Your task to perform on an android device: Open CNN.com Image 0: 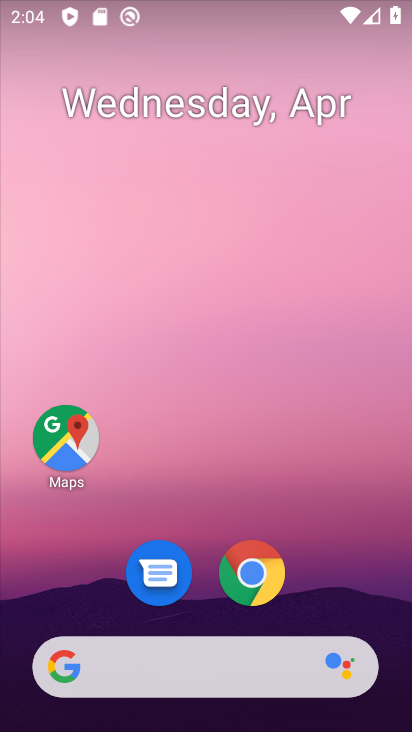
Step 0: drag from (341, 574) to (353, 247)
Your task to perform on an android device: Open CNN.com Image 1: 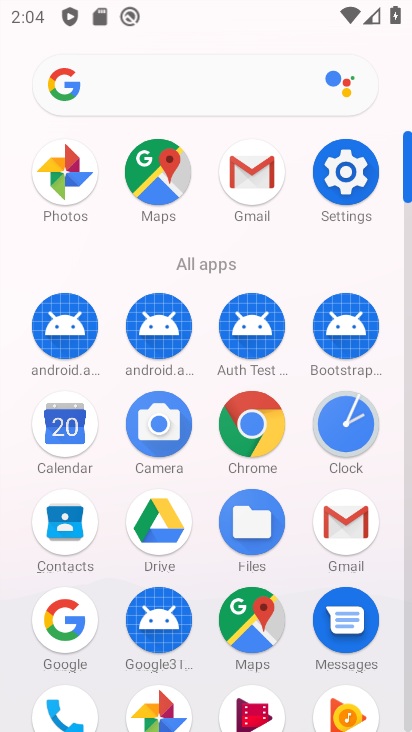
Step 1: click (268, 436)
Your task to perform on an android device: Open CNN.com Image 2: 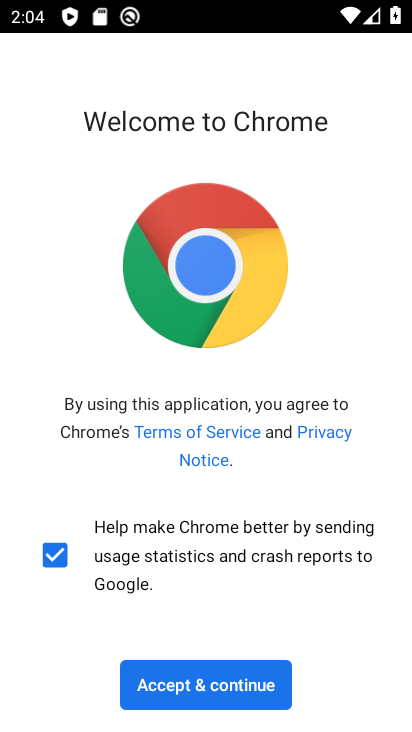
Step 2: click (235, 689)
Your task to perform on an android device: Open CNN.com Image 3: 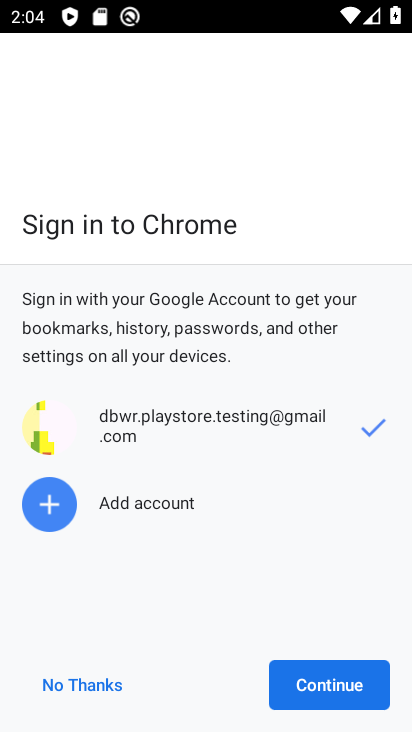
Step 3: click (355, 682)
Your task to perform on an android device: Open CNN.com Image 4: 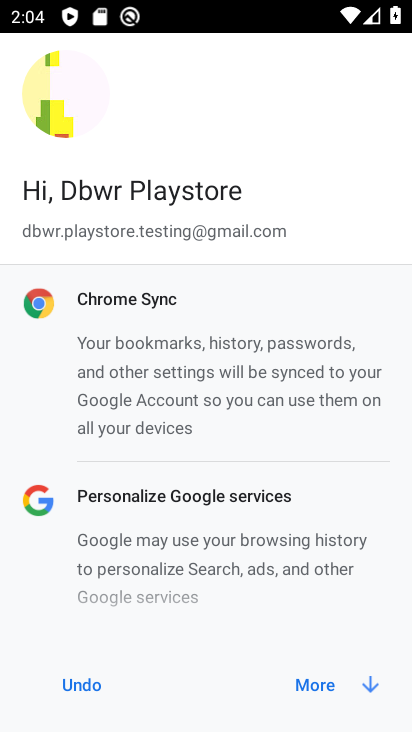
Step 4: click (317, 678)
Your task to perform on an android device: Open CNN.com Image 5: 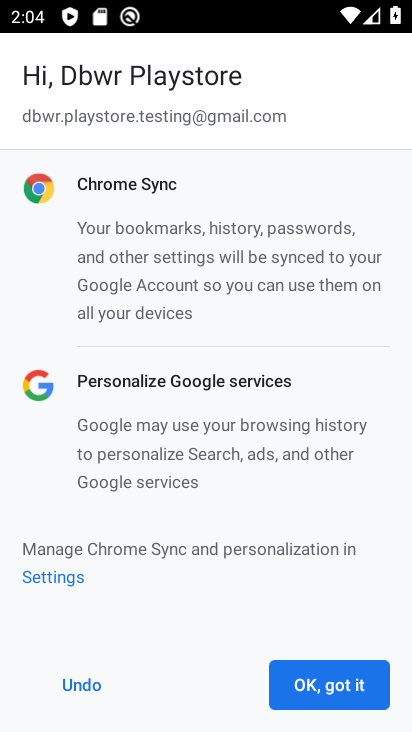
Step 5: click (367, 690)
Your task to perform on an android device: Open CNN.com Image 6: 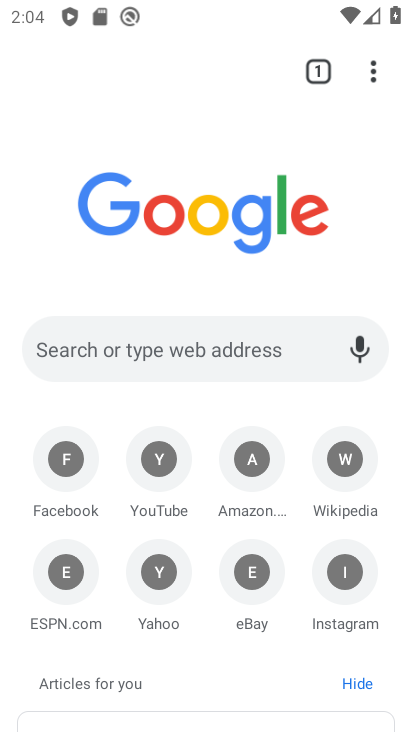
Step 6: click (254, 346)
Your task to perform on an android device: Open CNN.com Image 7: 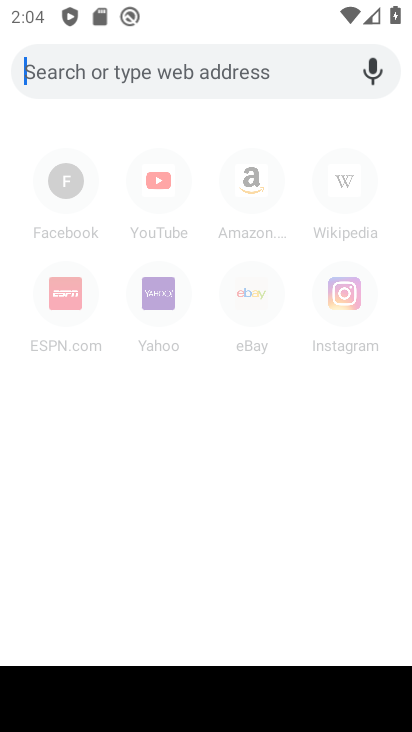
Step 7: type "cnn.com"
Your task to perform on an android device: Open CNN.com Image 8: 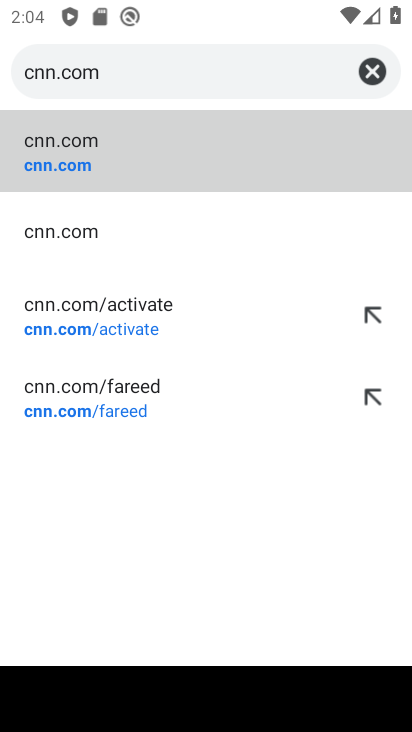
Step 8: click (54, 232)
Your task to perform on an android device: Open CNN.com Image 9: 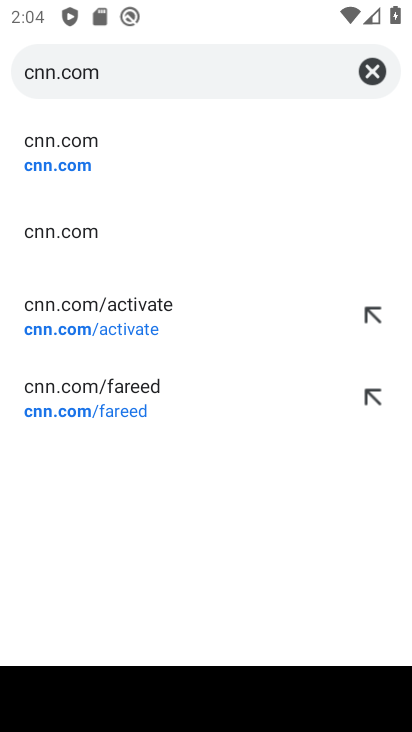
Step 9: click (69, 160)
Your task to perform on an android device: Open CNN.com Image 10: 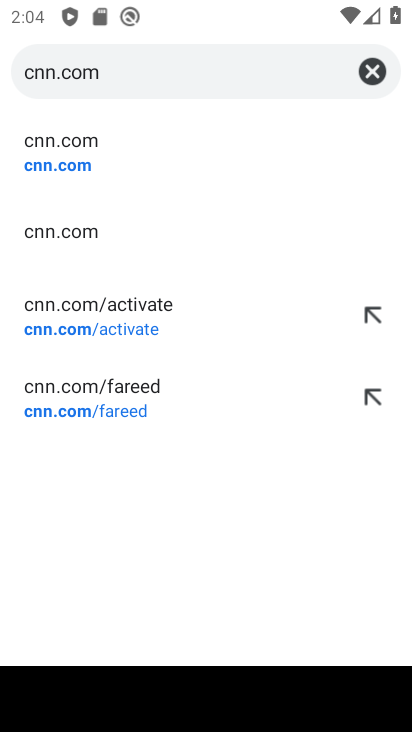
Step 10: click (77, 234)
Your task to perform on an android device: Open CNN.com Image 11: 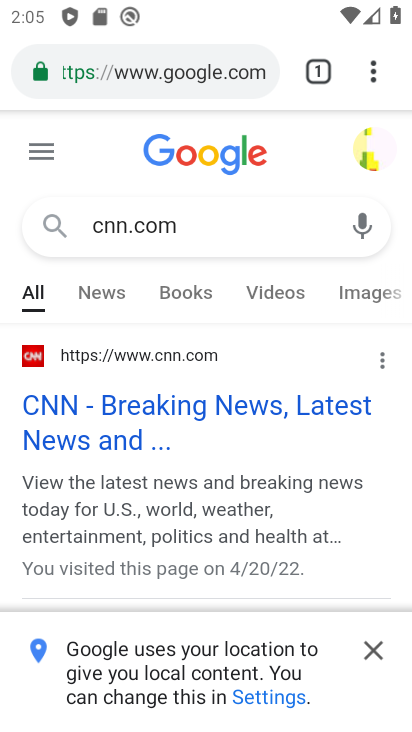
Step 11: task complete